Your task to perform on an android device: Open Chrome and go to the settings page Image 0: 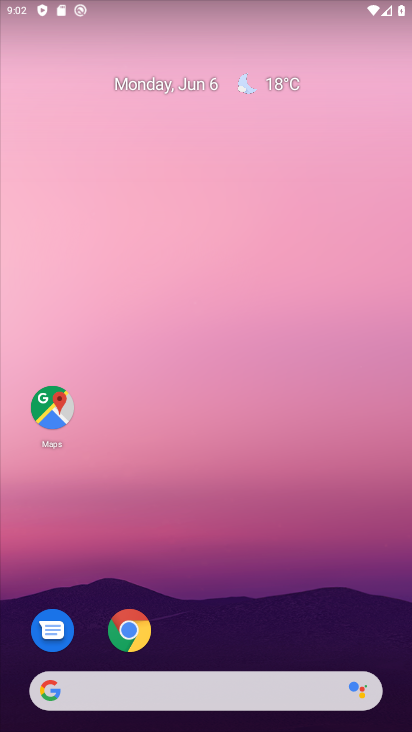
Step 0: click (142, 628)
Your task to perform on an android device: Open Chrome and go to the settings page Image 1: 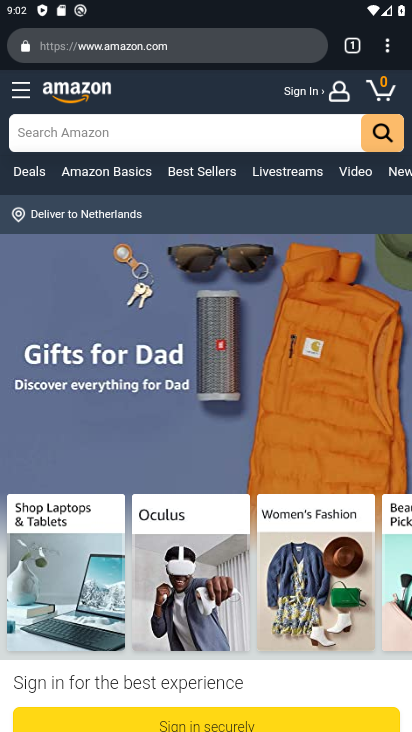
Step 1: click (388, 55)
Your task to perform on an android device: Open Chrome and go to the settings page Image 2: 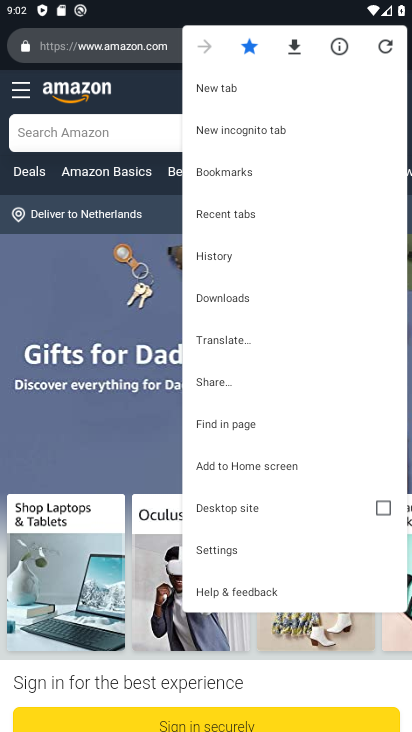
Step 2: click (234, 548)
Your task to perform on an android device: Open Chrome and go to the settings page Image 3: 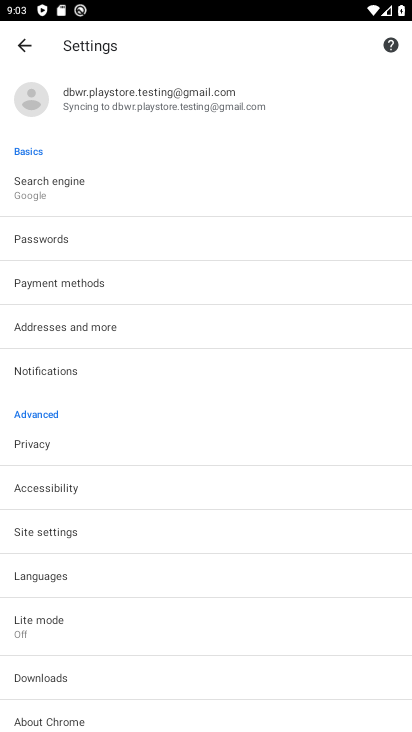
Step 3: task complete